Your task to perform on an android device: open app "Microsoft Excel" Image 0: 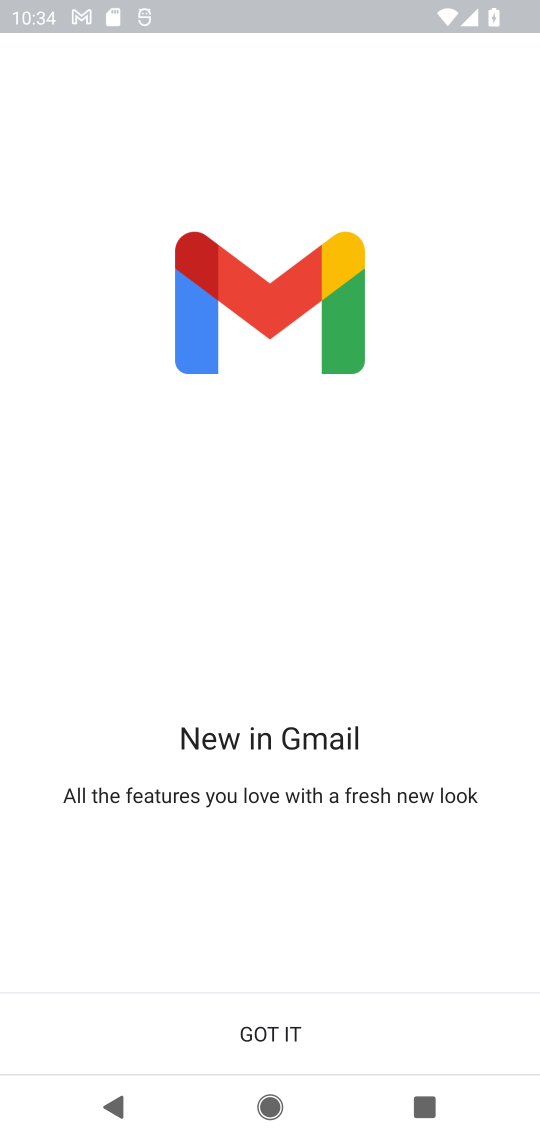
Step 0: press home button
Your task to perform on an android device: open app "Microsoft Excel" Image 1: 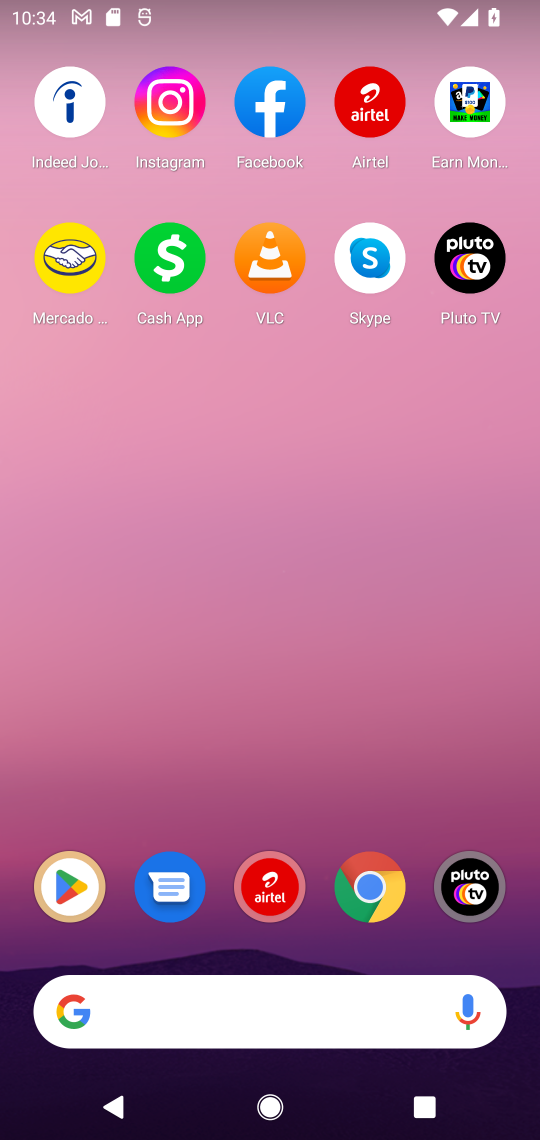
Step 1: drag from (306, 995) to (392, 71)
Your task to perform on an android device: open app "Microsoft Excel" Image 2: 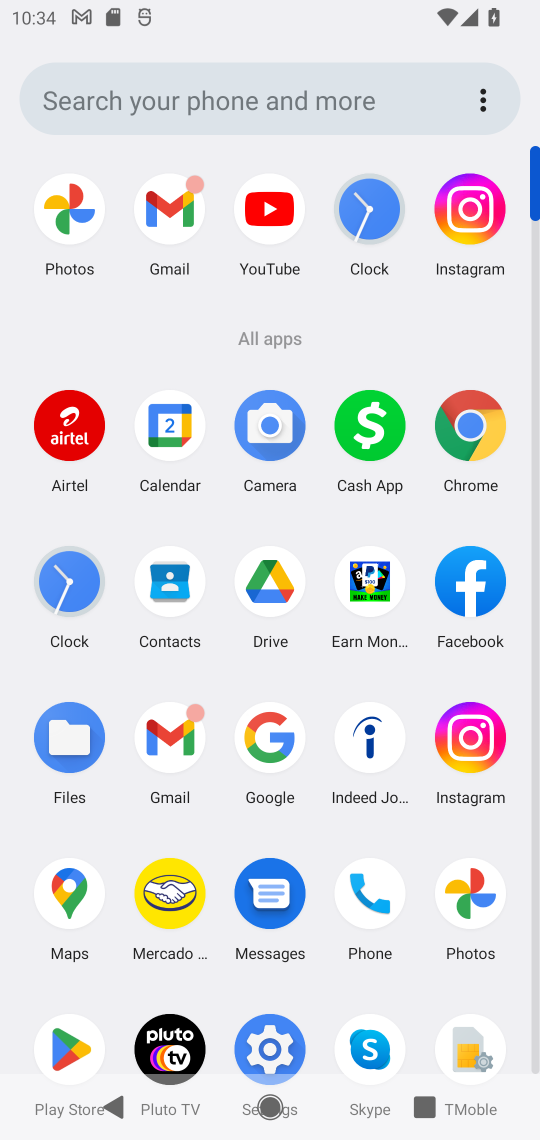
Step 2: click (73, 1031)
Your task to perform on an android device: open app "Microsoft Excel" Image 3: 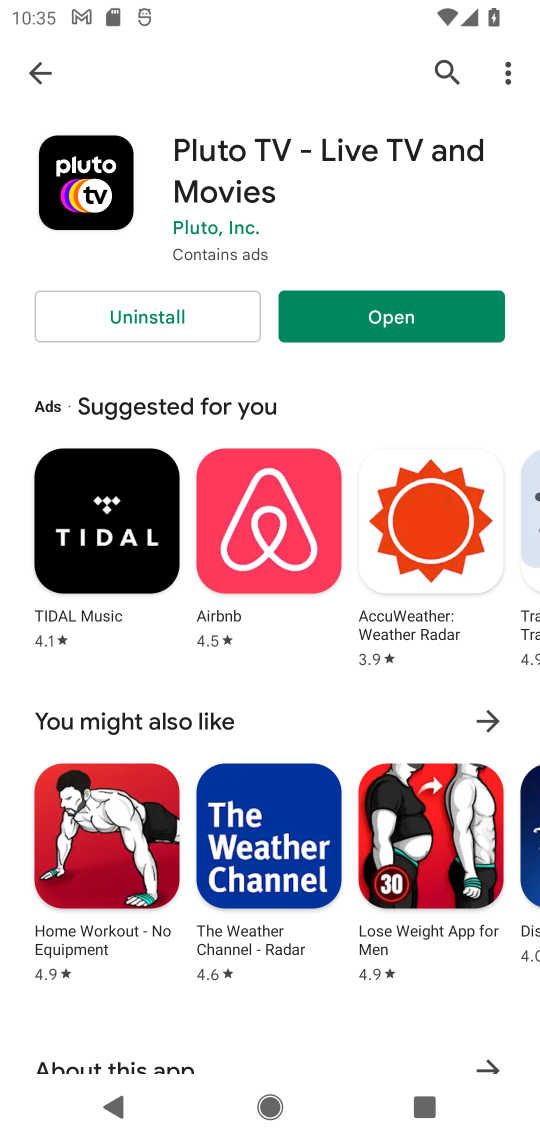
Step 3: click (51, 84)
Your task to perform on an android device: open app "Microsoft Excel" Image 4: 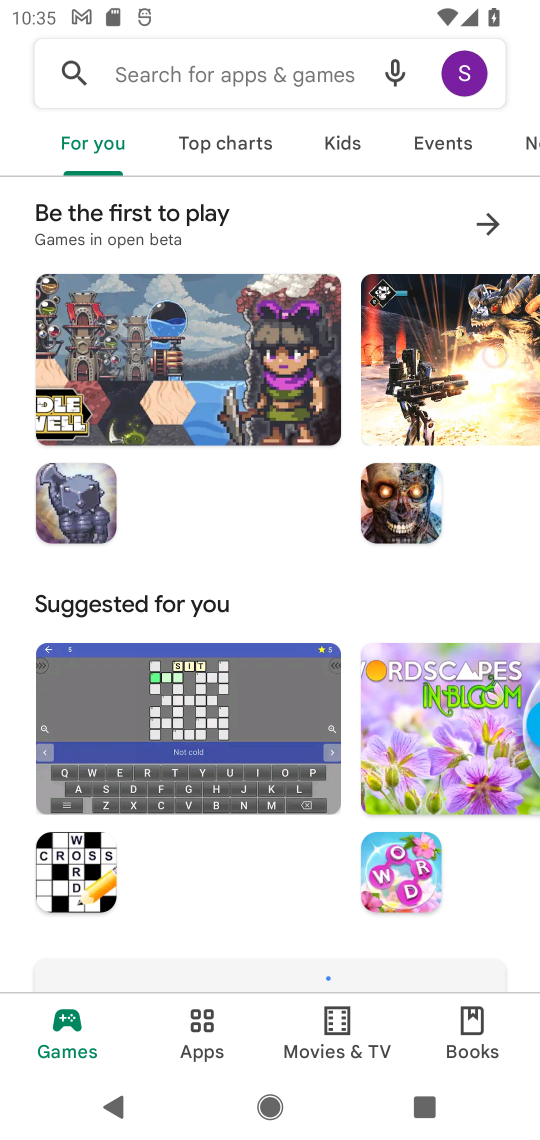
Step 4: click (161, 64)
Your task to perform on an android device: open app "Microsoft Excel" Image 5: 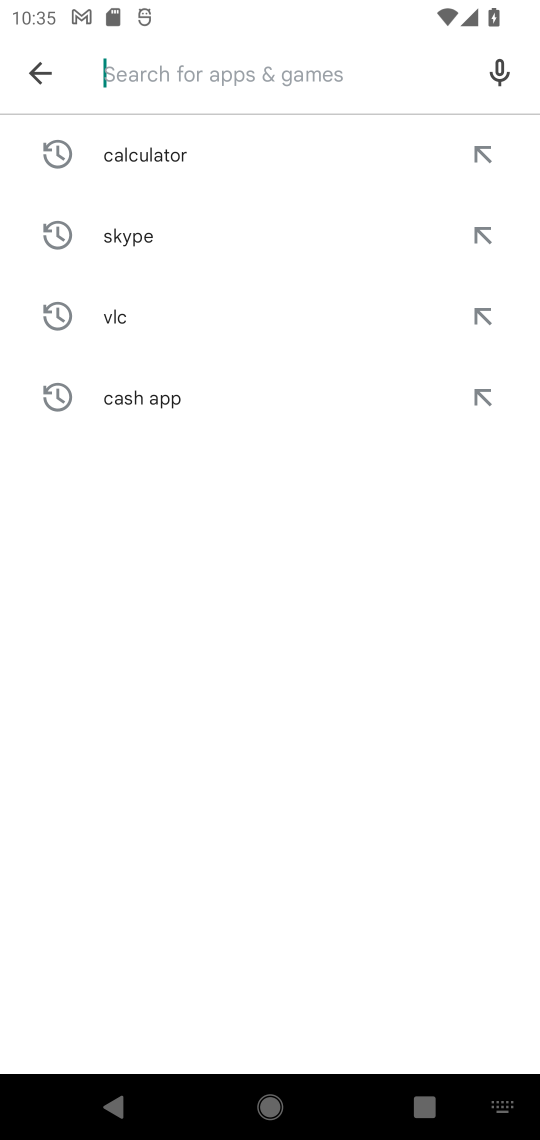
Step 5: type "Microsoft Excel"
Your task to perform on an android device: open app "Microsoft Excel" Image 6: 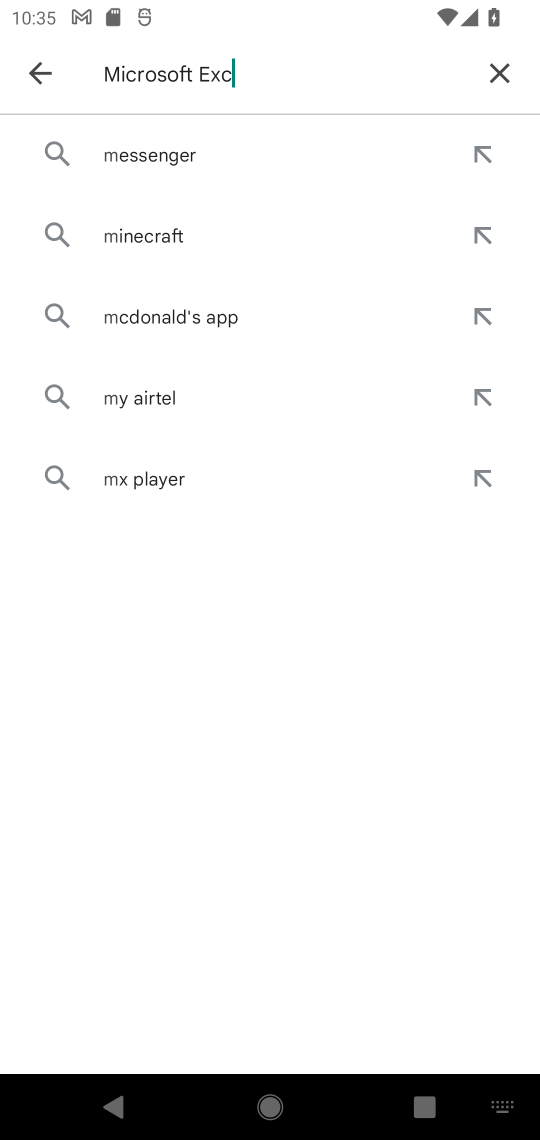
Step 6: type ""
Your task to perform on an android device: open app "Microsoft Excel" Image 7: 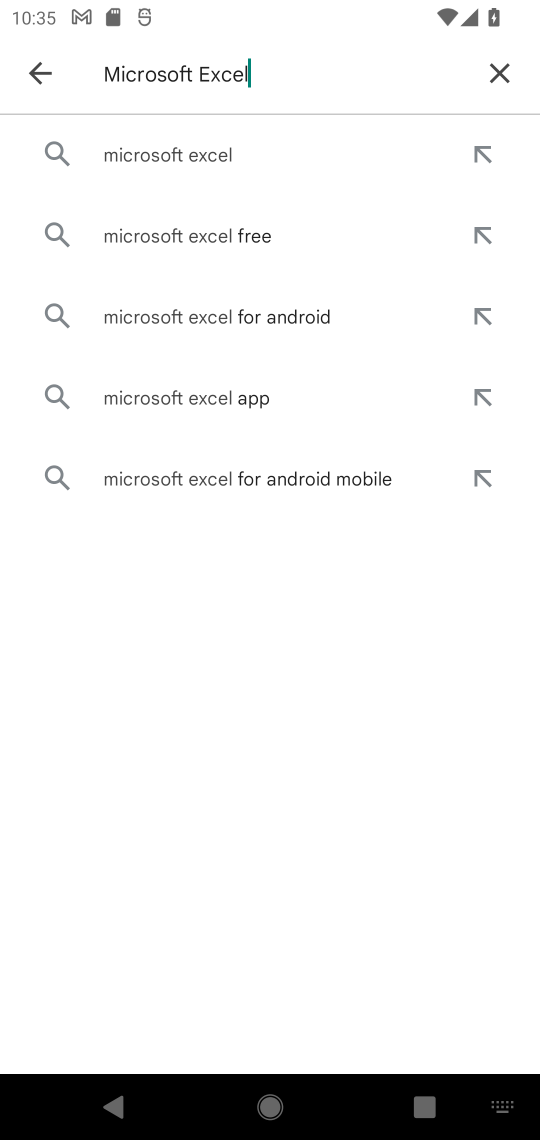
Step 7: click (212, 161)
Your task to perform on an android device: open app "Microsoft Excel" Image 8: 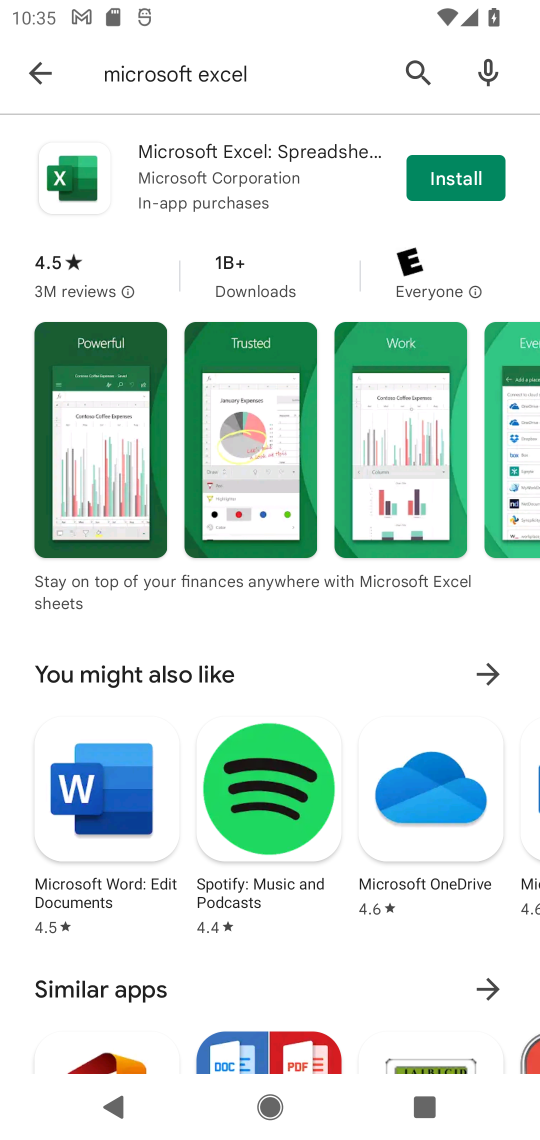
Step 8: task complete